Your task to perform on an android device: Open Google Image 0: 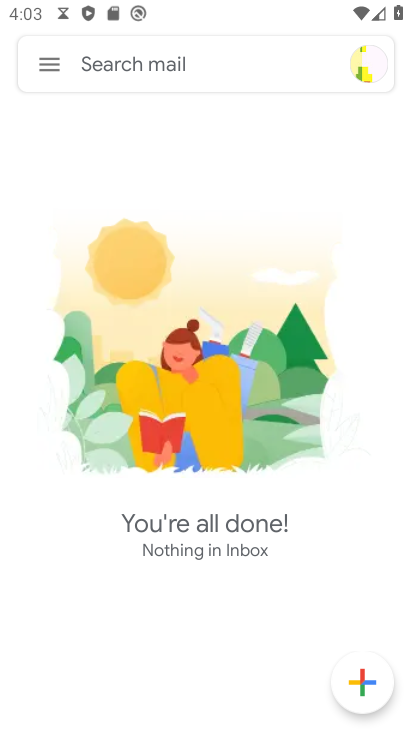
Step 0: press home button
Your task to perform on an android device: Open Google Image 1: 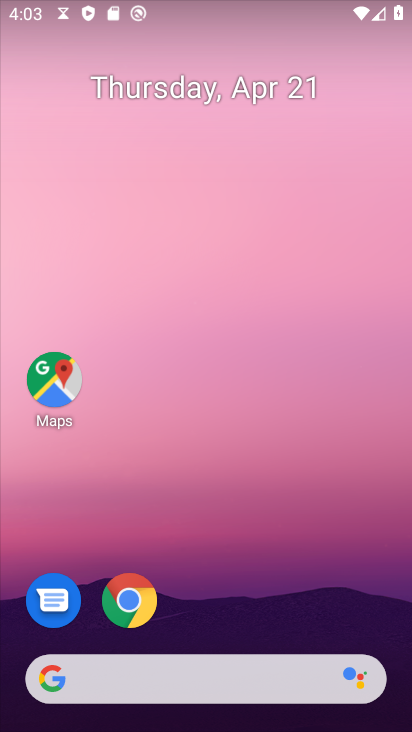
Step 1: drag from (214, 579) to (218, 52)
Your task to perform on an android device: Open Google Image 2: 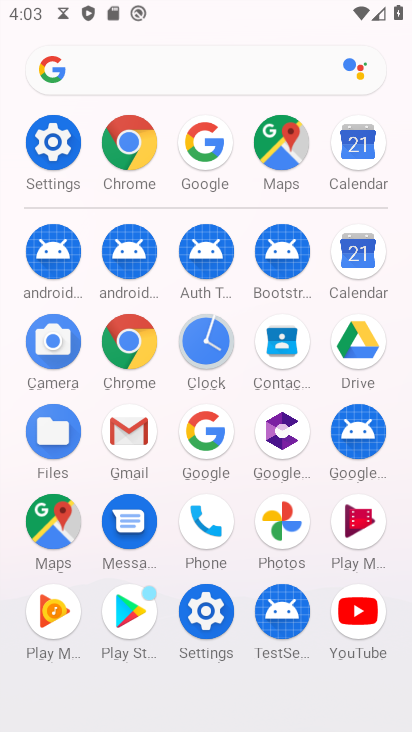
Step 2: click (207, 143)
Your task to perform on an android device: Open Google Image 3: 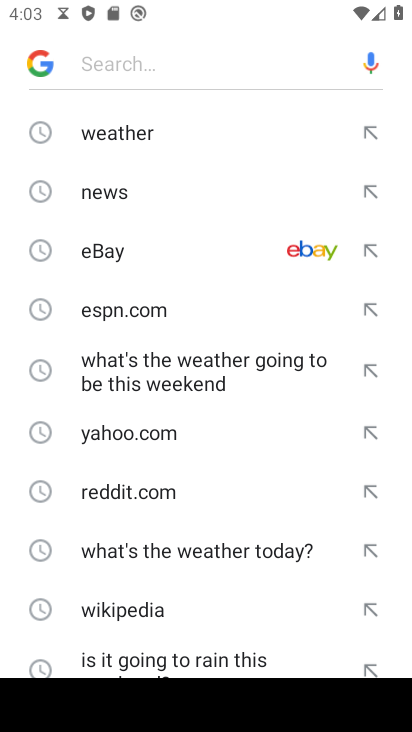
Step 3: task complete